Your task to perform on an android device: Open ESPN.com Image 0: 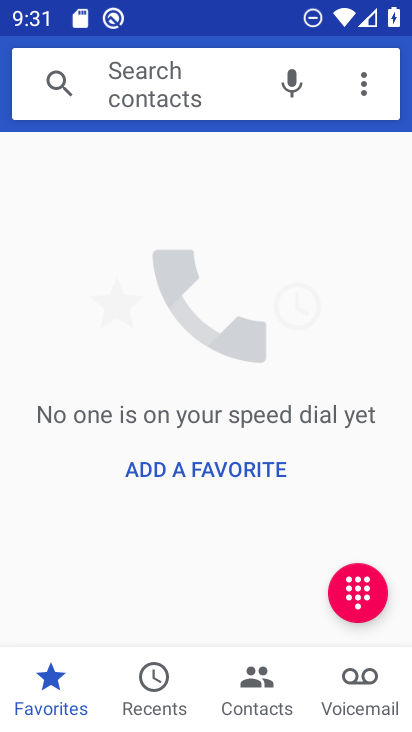
Step 0: press home button
Your task to perform on an android device: Open ESPN.com Image 1: 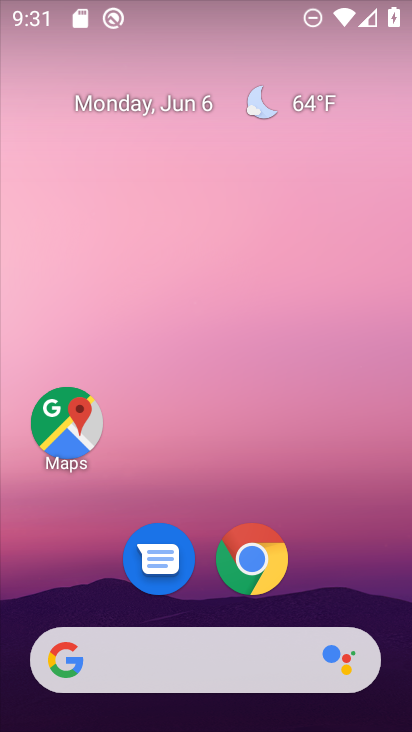
Step 1: click (258, 561)
Your task to perform on an android device: Open ESPN.com Image 2: 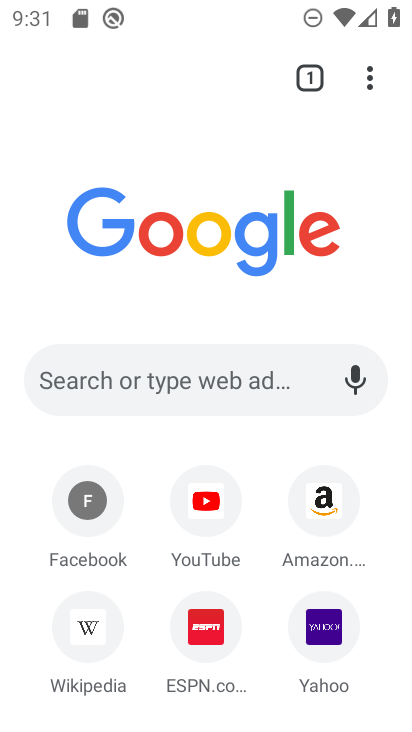
Step 2: click (212, 627)
Your task to perform on an android device: Open ESPN.com Image 3: 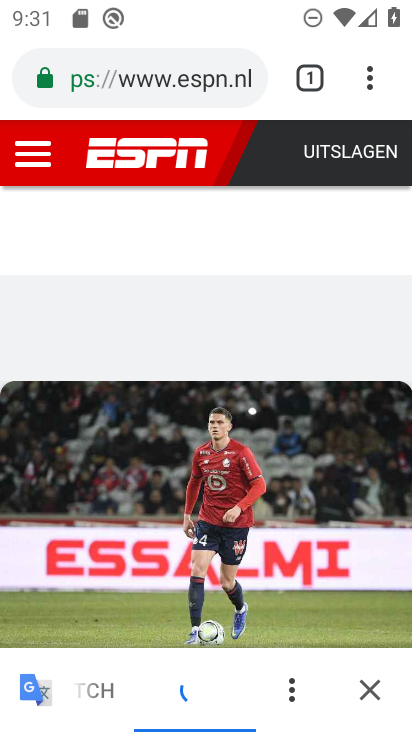
Step 3: task complete